Your task to perform on an android device: Open settings Image 0: 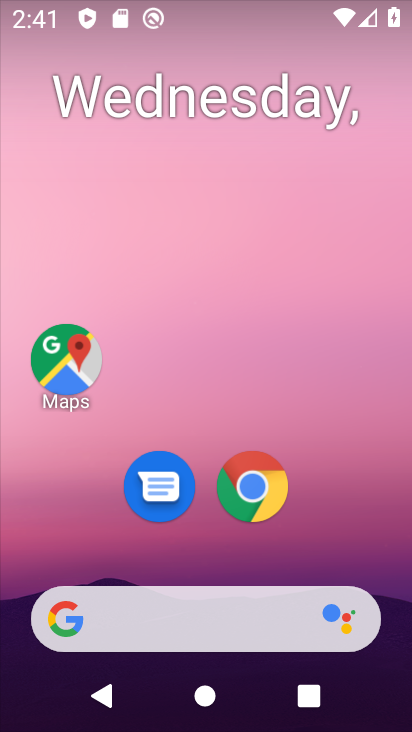
Step 0: drag from (226, 583) to (188, 25)
Your task to perform on an android device: Open settings Image 1: 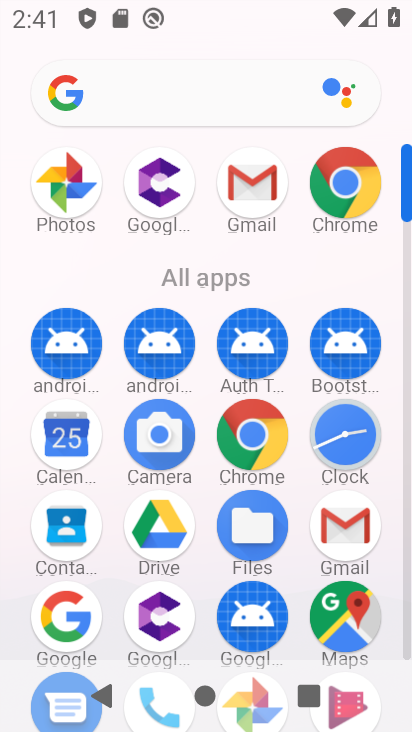
Step 1: drag from (141, 522) to (153, 47)
Your task to perform on an android device: Open settings Image 2: 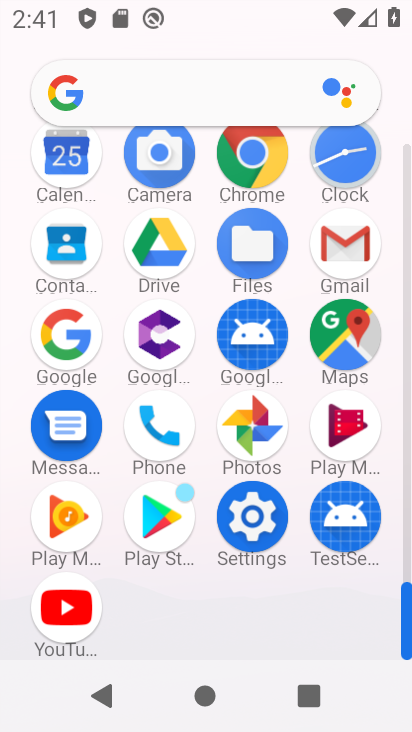
Step 2: click (255, 512)
Your task to perform on an android device: Open settings Image 3: 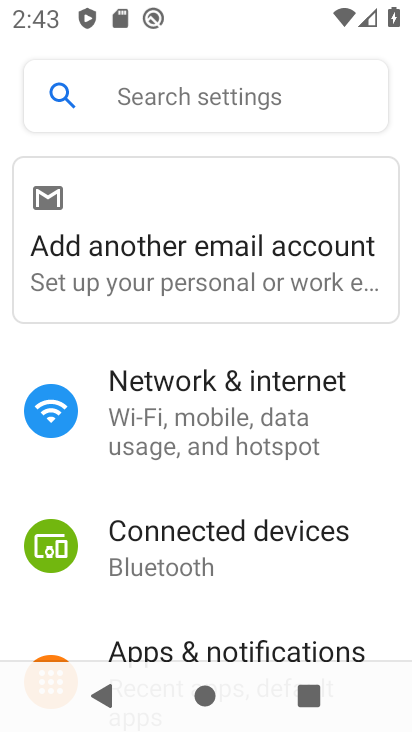
Step 3: task complete